Your task to perform on an android device: Open Google Chrome and open the bookmarks view Image 0: 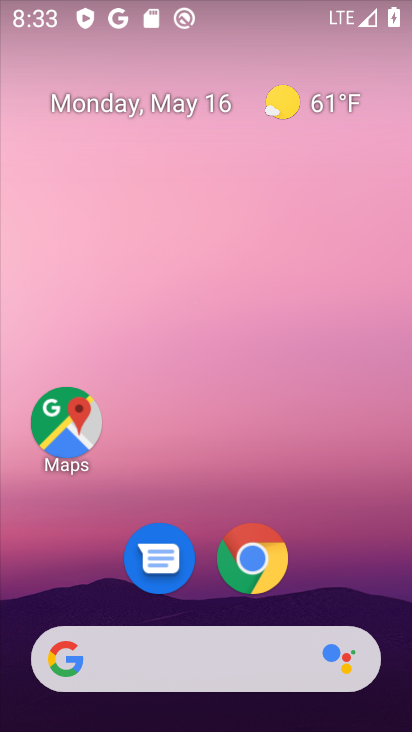
Step 0: click (254, 564)
Your task to perform on an android device: Open Google Chrome and open the bookmarks view Image 1: 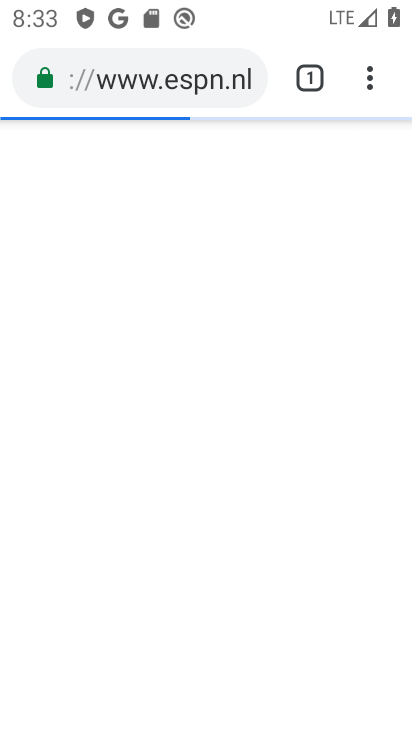
Step 1: task complete